Your task to perform on an android device: Go to settings Image 0: 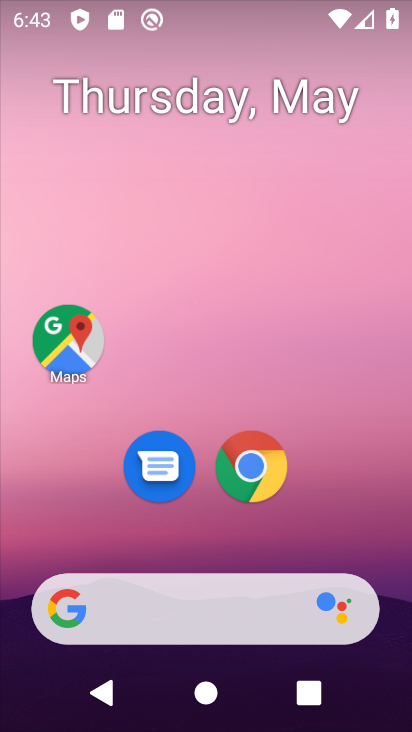
Step 0: drag from (345, 509) to (250, 161)
Your task to perform on an android device: Go to settings Image 1: 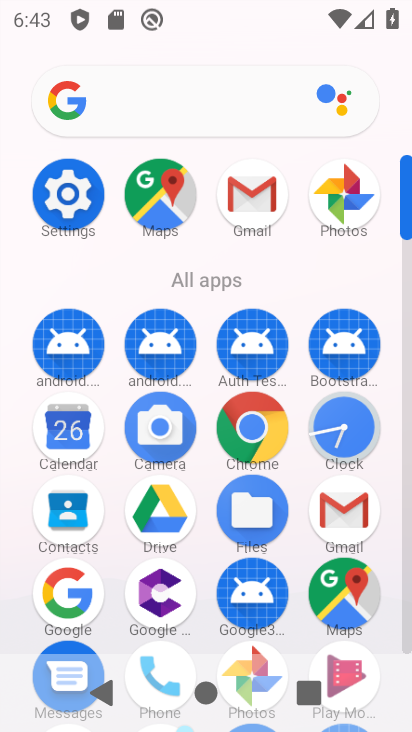
Step 1: click (62, 202)
Your task to perform on an android device: Go to settings Image 2: 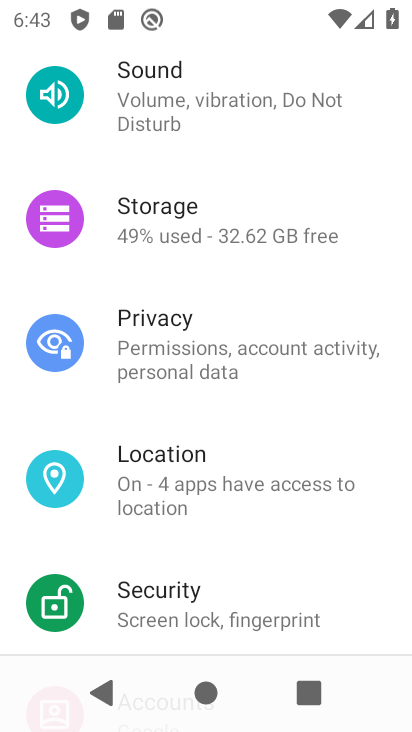
Step 2: task complete